Your task to perform on an android device: find which apps use the phone's location Image 0: 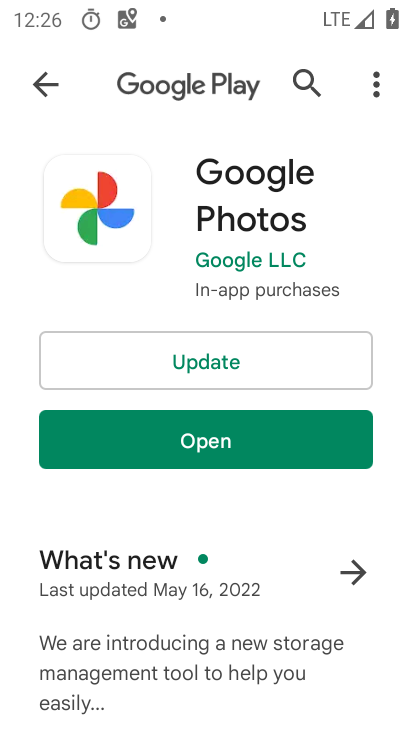
Step 0: press home button
Your task to perform on an android device: find which apps use the phone's location Image 1: 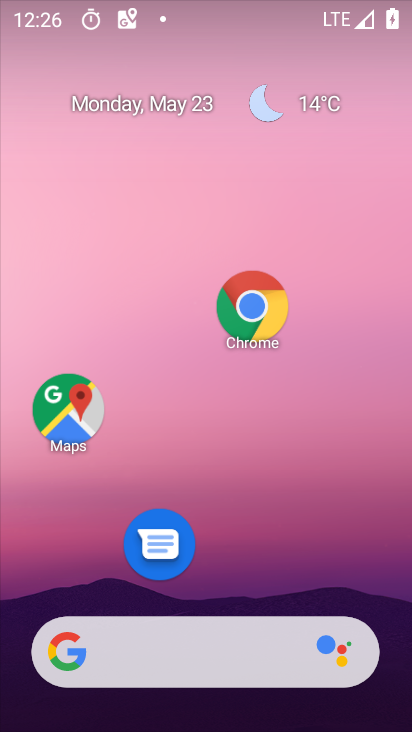
Step 1: drag from (230, 562) to (247, 95)
Your task to perform on an android device: find which apps use the phone's location Image 2: 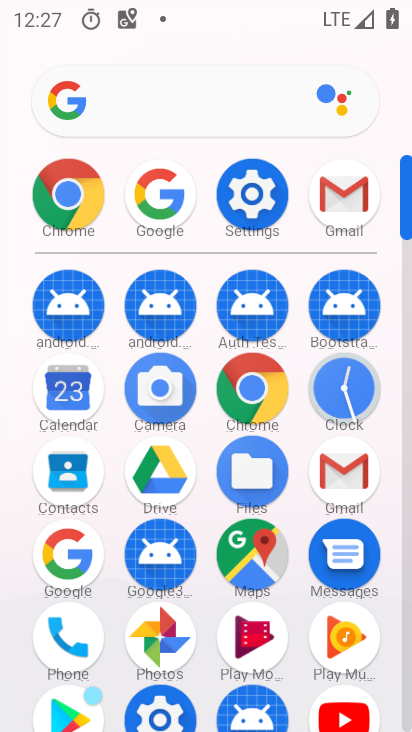
Step 2: drag from (172, 588) to (195, 344)
Your task to perform on an android device: find which apps use the phone's location Image 3: 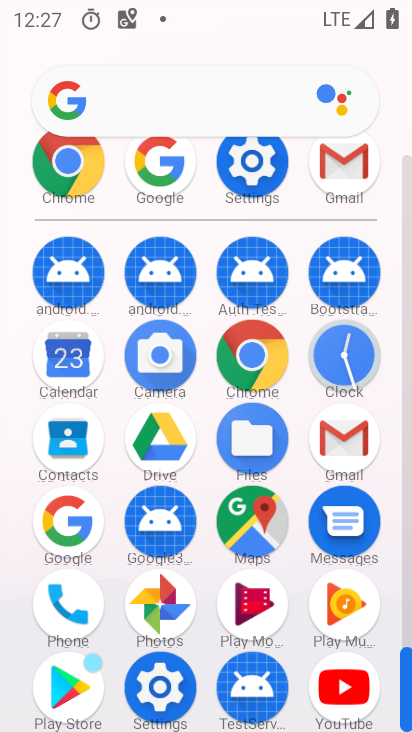
Step 3: click (151, 682)
Your task to perform on an android device: find which apps use the phone's location Image 4: 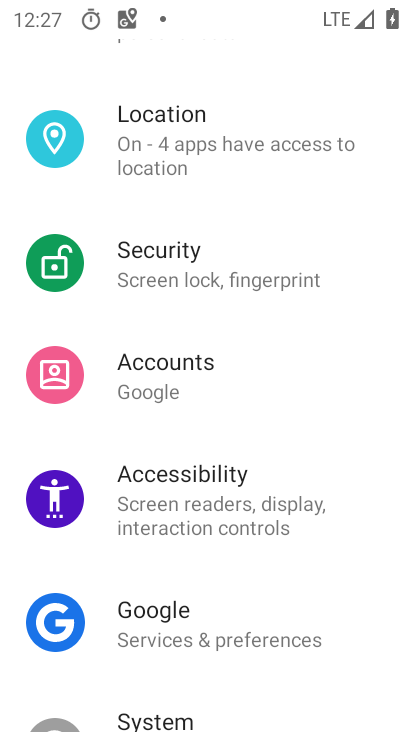
Step 4: drag from (177, 567) to (233, 238)
Your task to perform on an android device: find which apps use the phone's location Image 5: 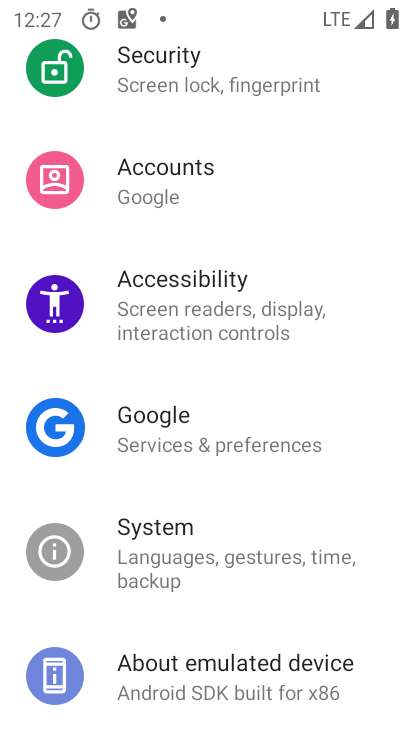
Step 5: drag from (204, 247) to (190, 532)
Your task to perform on an android device: find which apps use the phone's location Image 6: 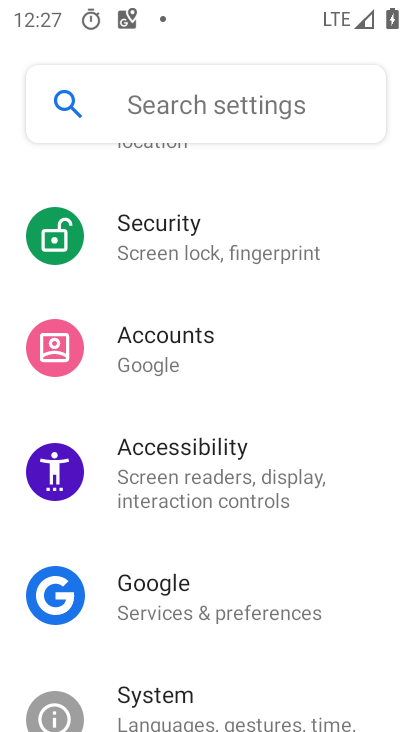
Step 6: drag from (232, 336) to (211, 608)
Your task to perform on an android device: find which apps use the phone's location Image 7: 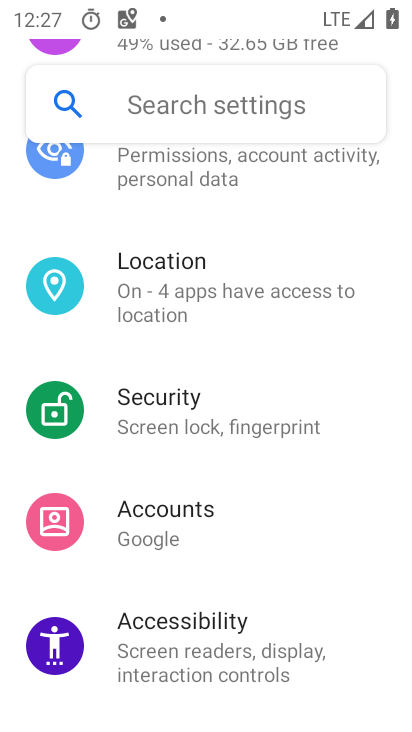
Step 7: click (180, 289)
Your task to perform on an android device: find which apps use the phone's location Image 8: 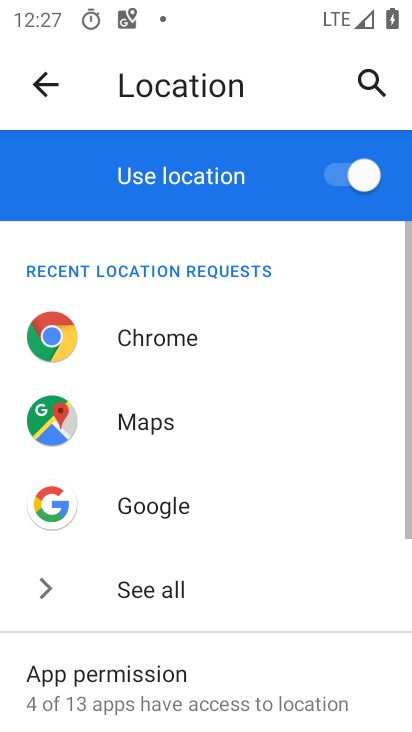
Step 8: click (123, 694)
Your task to perform on an android device: find which apps use the phone's location Image 9: 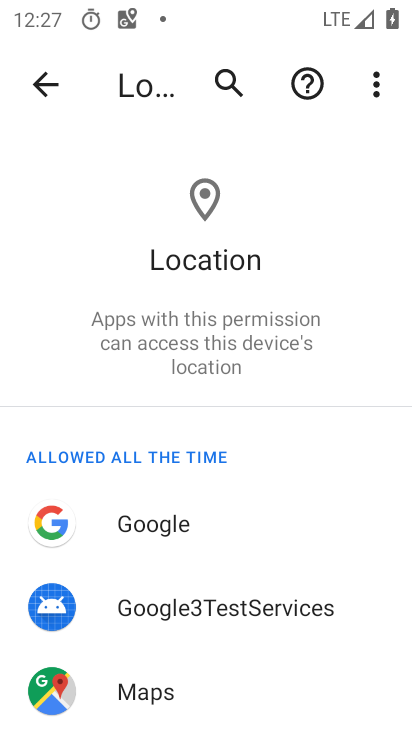
Step 9: task complete